Your task to perform on an android device: Go to CNN.com Image 0: 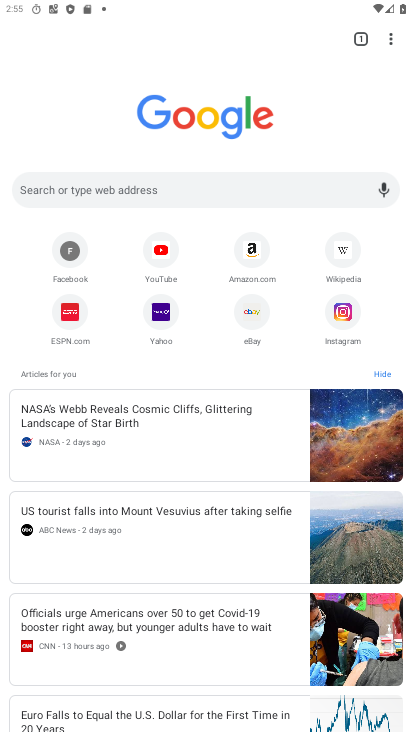
Step 0: click (172, 181)
Your task to perform on an android device: Go to CNN.com Image 1: 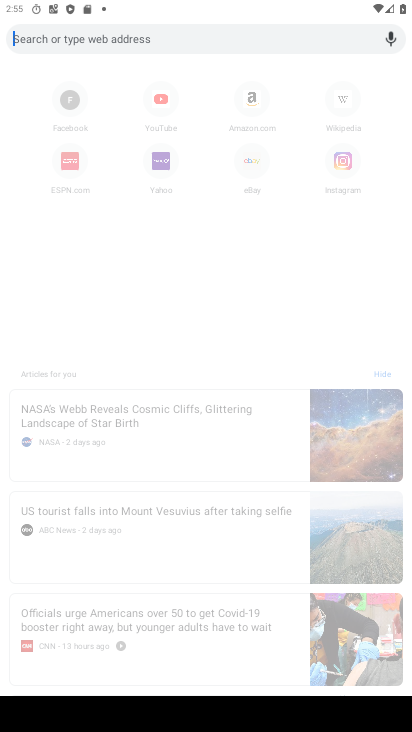
Step 1: type "CNN.com"
Your task to perform on an android device: Go to CNN.com Image 2: 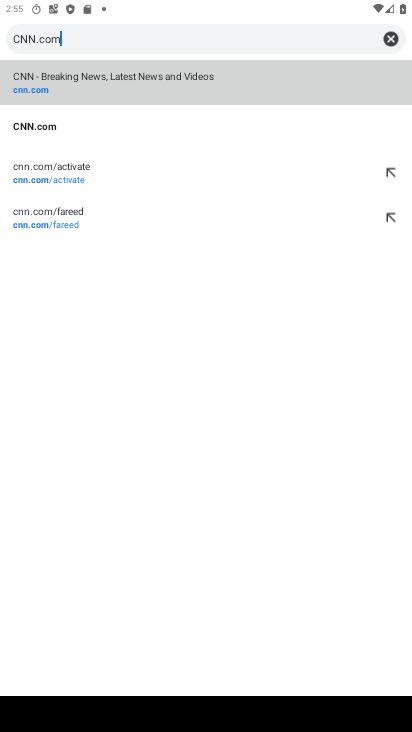
Step 2: type ""
Your task to perform on an android device: Go to CNN.com Image 3: 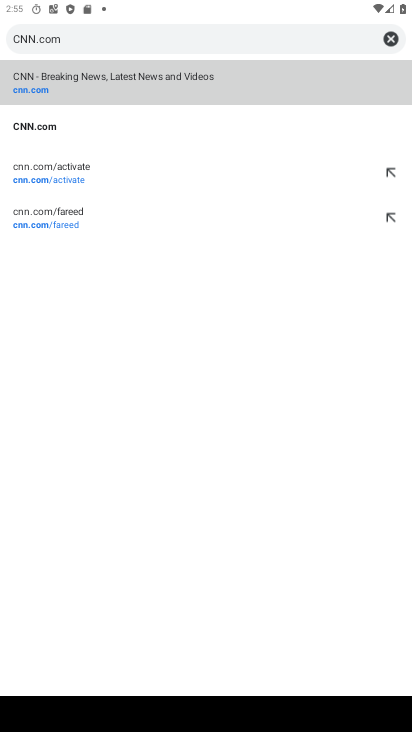
Step 3: click (52, 122)
Your task to perform on an android device: Go to CNN.com Image 4: 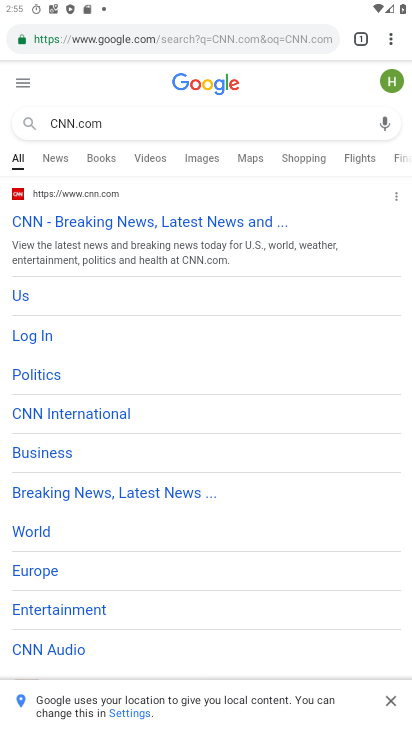
Step 4: task complete